Your task to perform on an android device: turn off improve location accuracy Image 0: 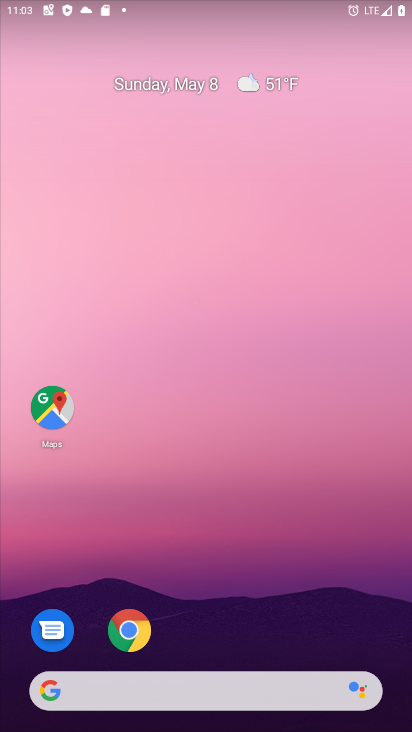
Step 0: drag from (378, 644) to (329, 61)
Your task to perform on an android device: turn off improve location accuracy Image 1: 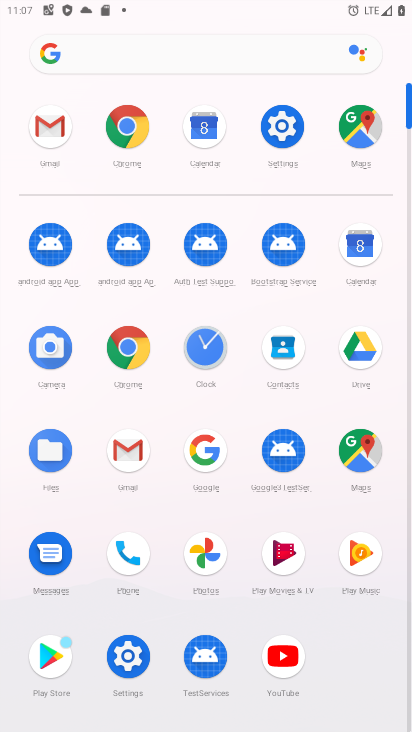
Step 1: click (120, 675)
Your task to perform on an android device: turn off improve location accuracy Image 2: 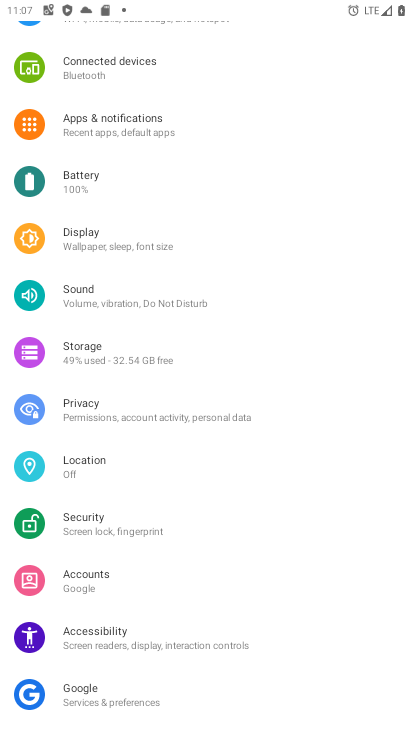
Step 2: click (111, 473)
Your task to perform on an android device: turn off improve location accuracy Image 3: 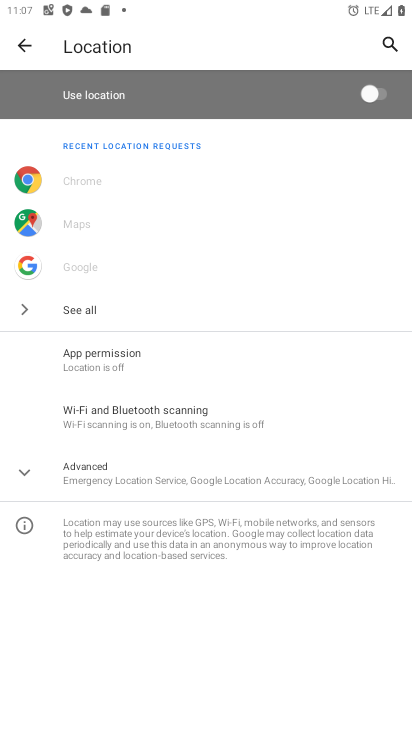
Step 3: click (78, 464)
Your task to perform on an android device: turn off improve location accuracy Image 4: 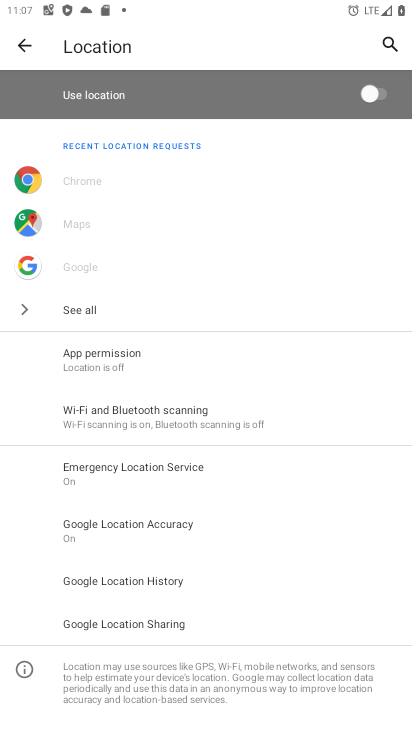
Step 4: click (178, 536)
Your task to perform on an android device: turn off improve location accuracy Image 5: 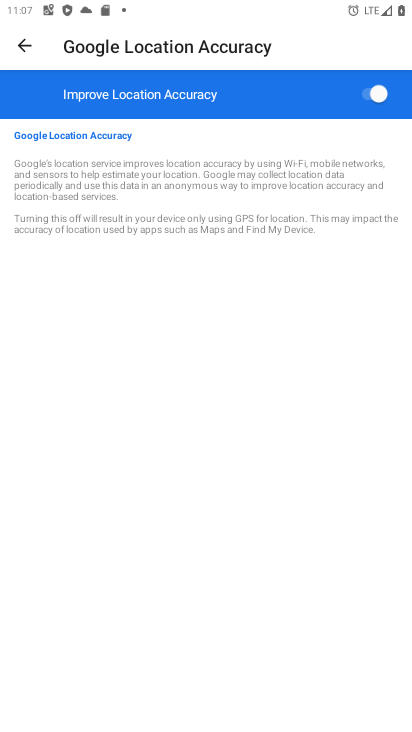
Step 5: click (370, 67)
Your task to perform on an android device: turn off improve location accuracy Image 6: 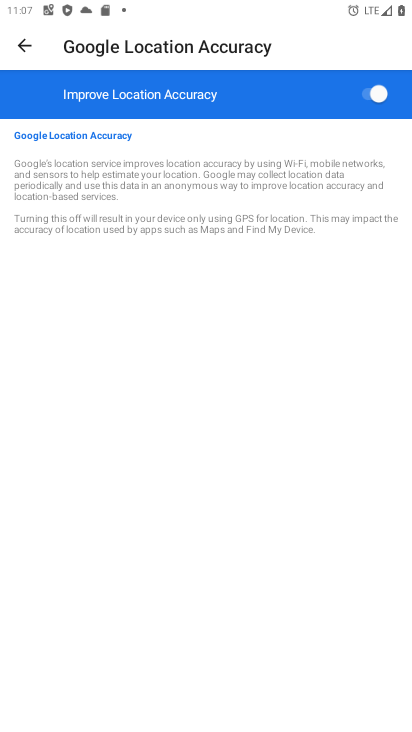
Step 6: click (354, 92)
Your task to perform on an android device: turn off improve location accuracy Image 7: 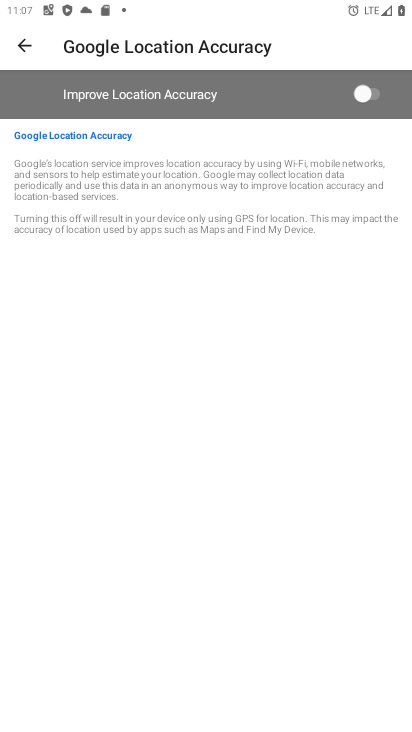
Step 7: task complete